Your task to perform on an android device: Search for pizza restaurants on Maps Image 0: 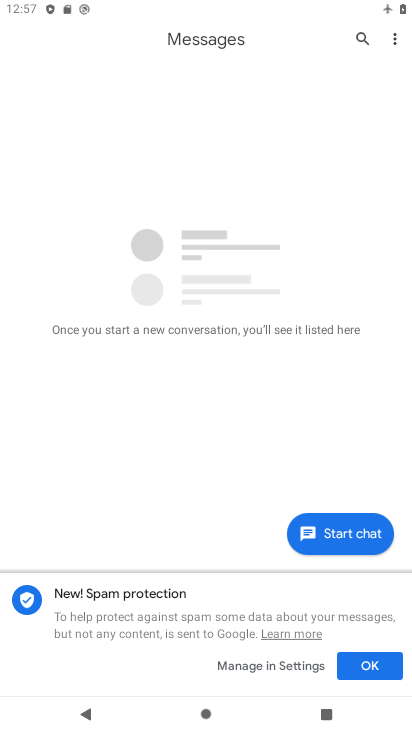
Step 0: press home button
Your task to perform on an android device: Search for pizza restaurants on Maps Image 1: 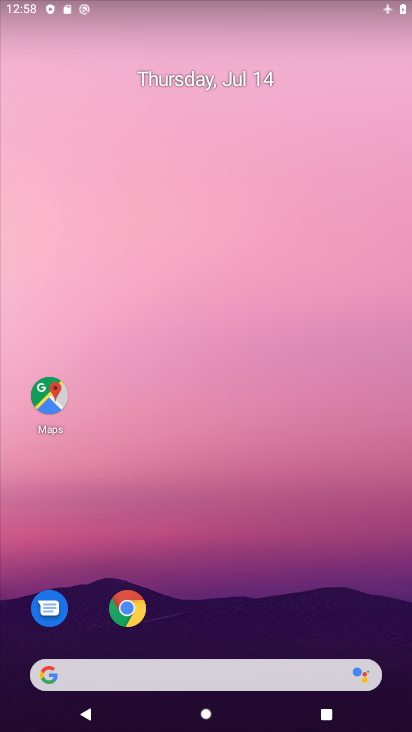
Step 1: click (48, 395)
Your task to perform on an android device: Search for pizza restaurants on Maps Image 2: 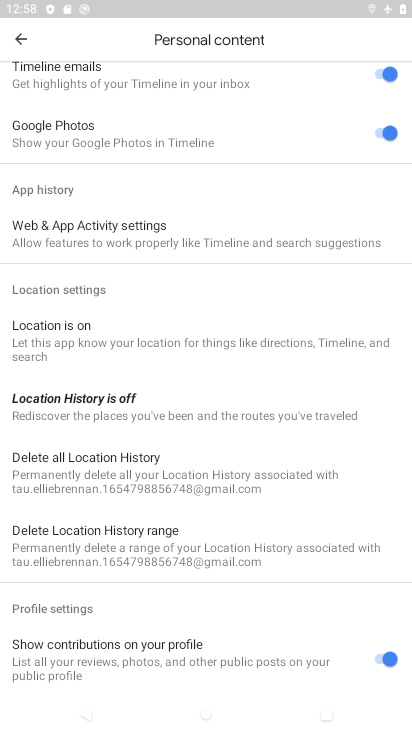
Step 2: press back button
Your task to perform on an android device: Search for pizza restaurants on Maps Image 3: 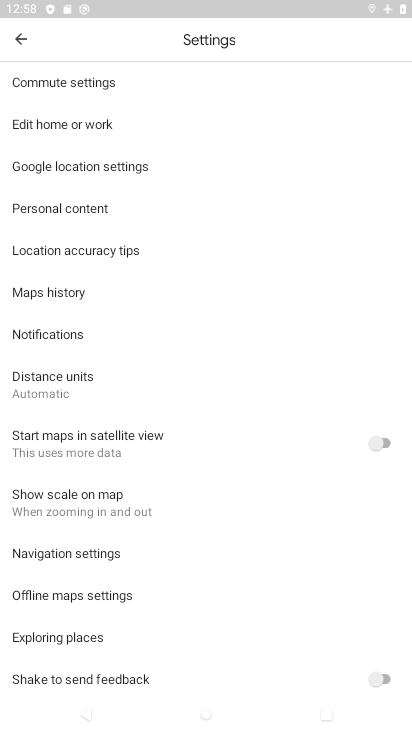
Step 3: press back button
Your task to perform on an android device: Search for pizza restaurants on Maps Image 4: 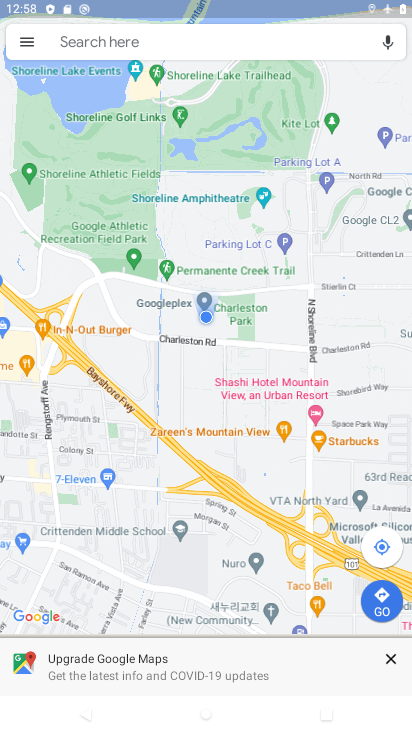
Step 4: click (109, 41)
Your task to perform on an android device: Search for pizza restaurants on Maps Image 5: 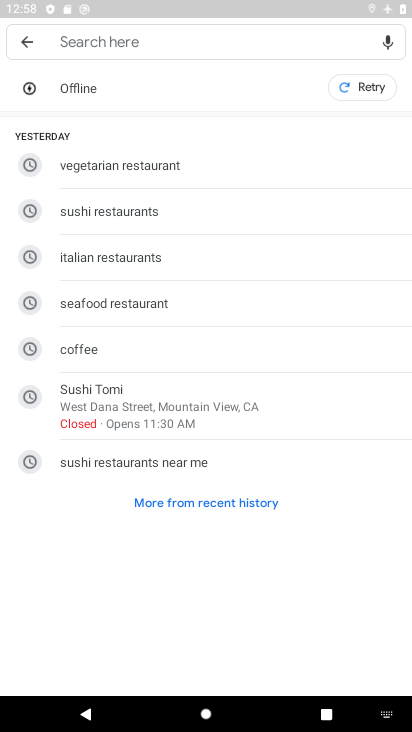
Step 5: type "pizza restaurants"
Your task to perform on an android device: Search for pizza restaurants on Maps Image 6: 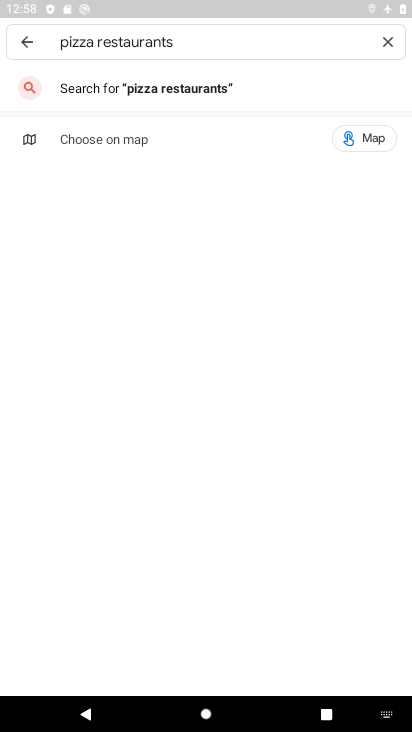
Step 6: click (165, 91)
Your task to perform on an android device: Search for pizza restaurants on Maps Image 7: 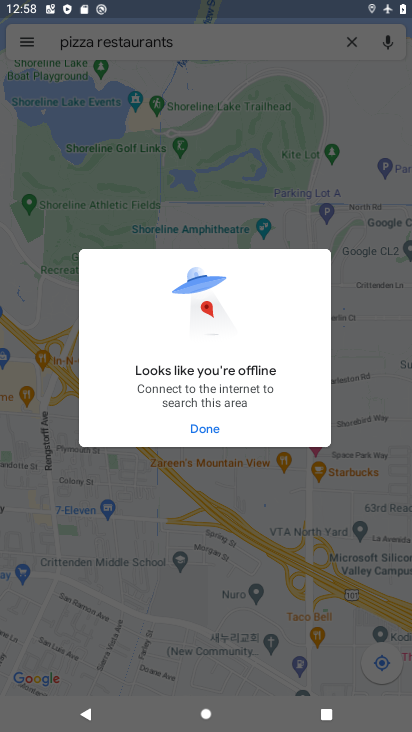
Step 7: task complete